Your task to perform on an android device: Go to settings Image 0: 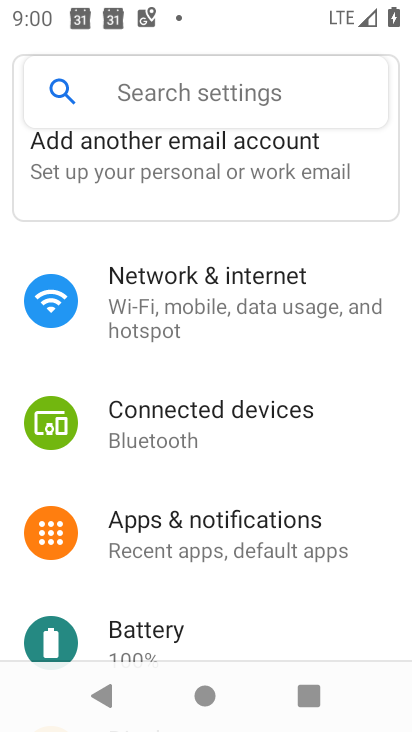
Step 0: press home button
Your task to perform on an android device: Go to settings Image 1: 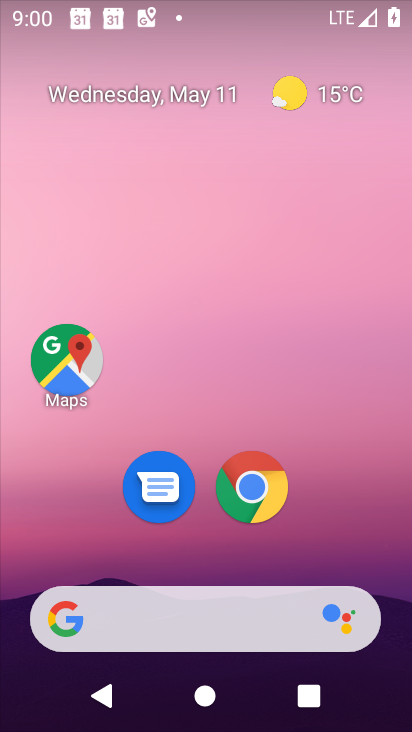
Step 1: drag from (231, 665) to (132, 171)
Your task to perform on an android device: Go to settings Image 2: 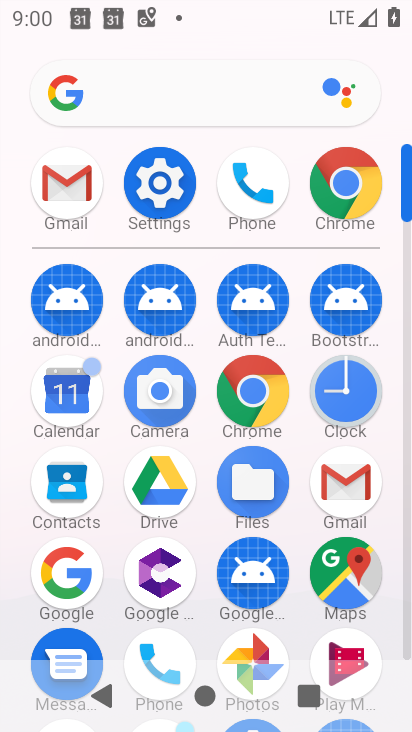
Step 2: click (140, 180)
Your task to perform on an android device: Go to settings Image 3: 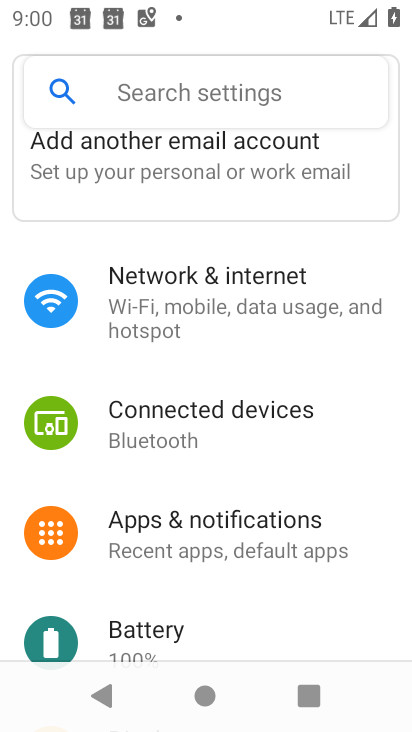
Step 3: task complete